Your task to perform on an android device: turn off sleep mode Image 0: 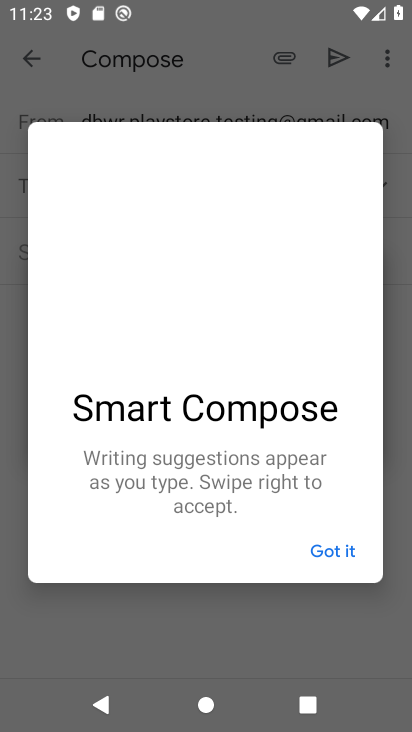
Step 0: click (396, 368)
Your task to perform on an android device: turn off sleep mode Image 1: 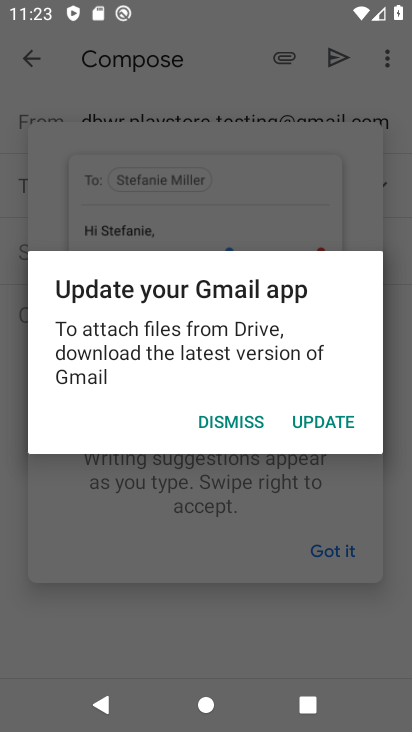
Step 1: click (206, 425)
Your task to perform on an android device: turn off sleep mode Image 2: 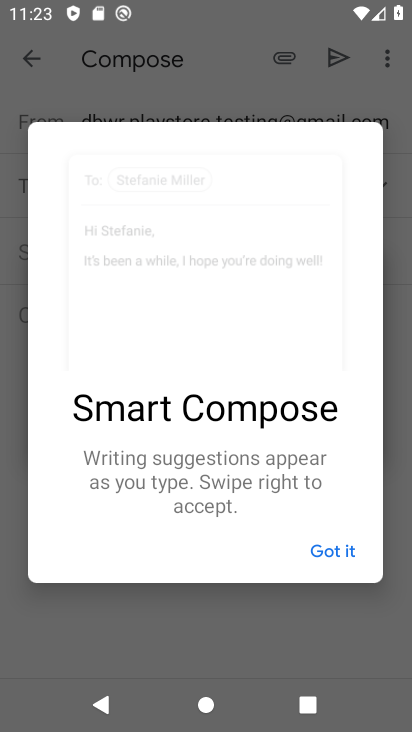
Step 2: task complete